Your task to perform on an android device: turn off javascript in the chrome app Image 0: 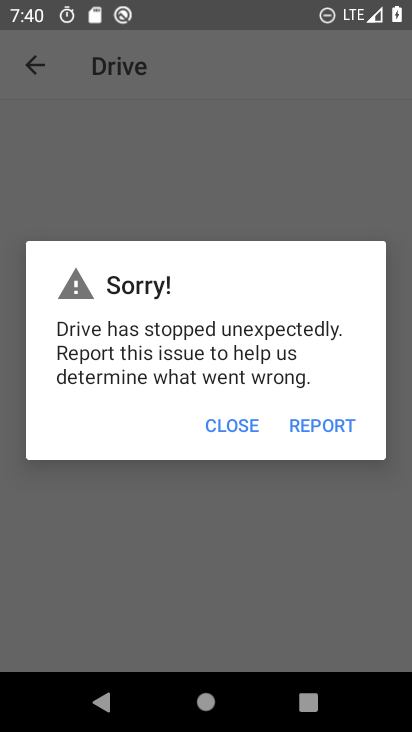
Step 0: press home button
Your task to perform on an android device: turn off javascript in the chrome app Image 1: 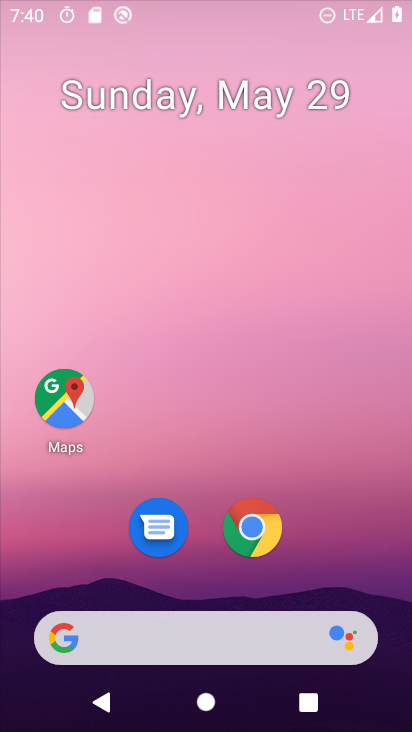
Step 1: drag from (390, 636) to (346, 47)
Your task to perform on an android device: turn off javascript in the chrome app Image 2: 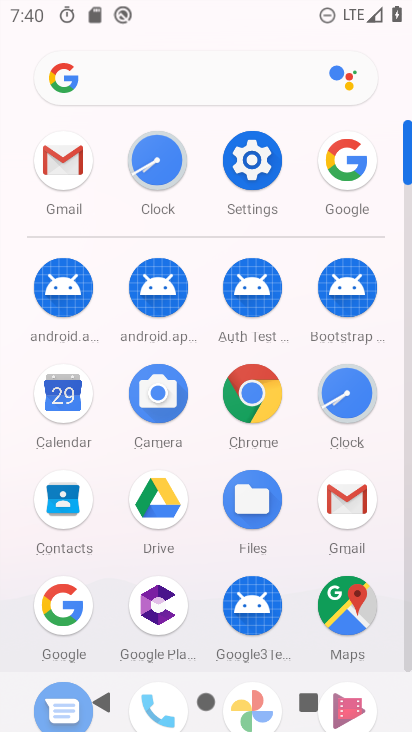
Step 2: click (259, 395)
Your task to perform on an android device: turn off javascript in the chrome app Image 3: 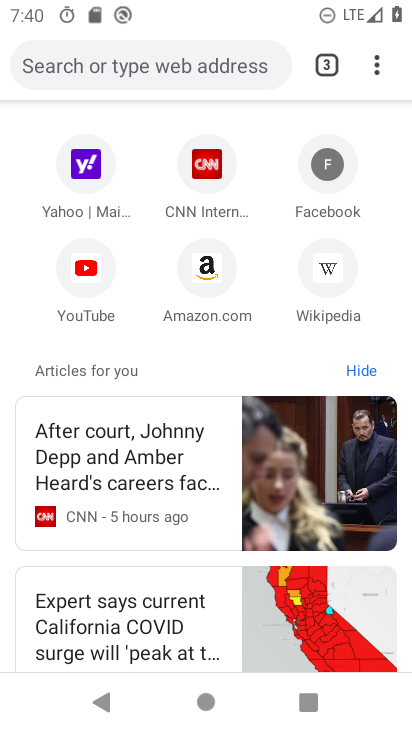
Step 3: click (381, 56)
Your task to perform on an android device: turn off javascript in the chrome app Image 4: 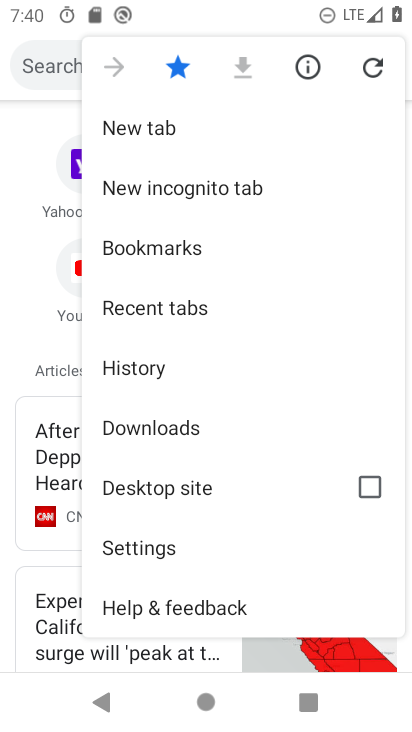
Step 4: click (194, 555)
Your task to perform on an android device: turn off javascript in the chrome app Image 5: 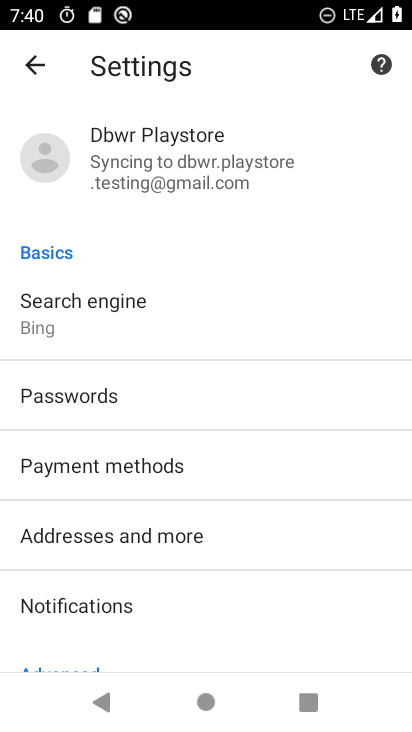
Step 5: drag from (180, 604) to (213, 154)
Your task to perform on an android device: turn off javascript in the chrome app Image 6: 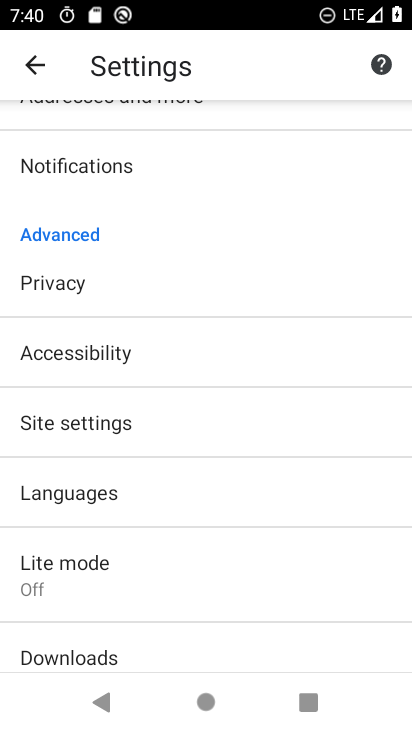
Step 6: click (147, 429)
Your task to perform on an android device: turn off javascript in the chrome app Image 7: 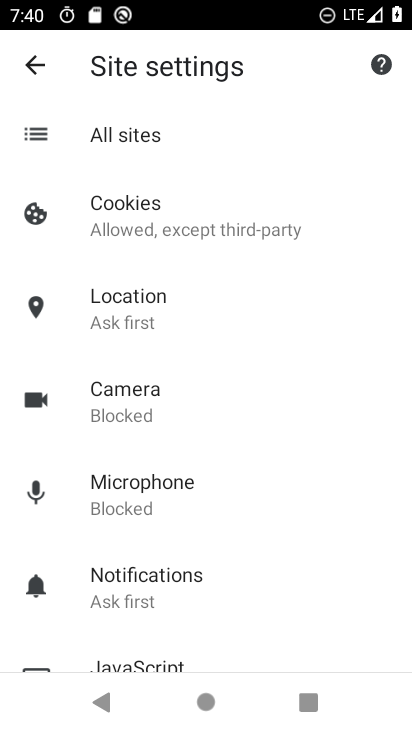
Step 7: click (142, 653)
Your task to perform on an android device: turn off javascript in the chrome app Image 8: 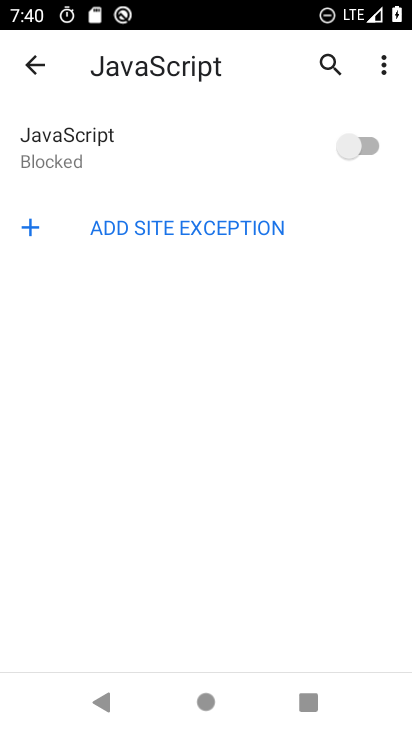
Step 8: task complete